Your task to perform on an android device: set an alarm Image 0: 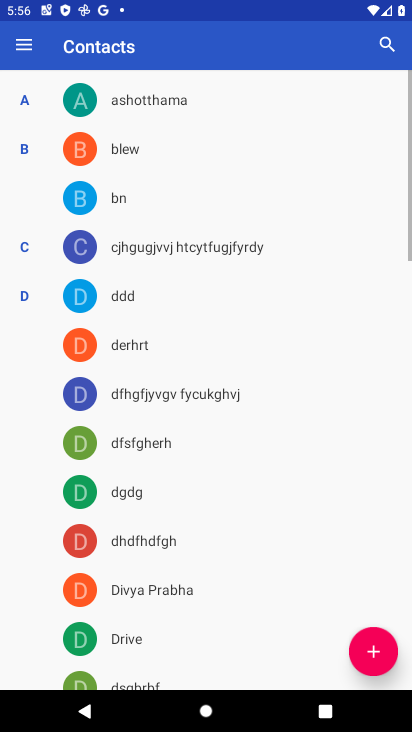
Step 0: drag from (218, 575) to (219, 313)
Your task to perform on an android device: set an alarm Image 1: 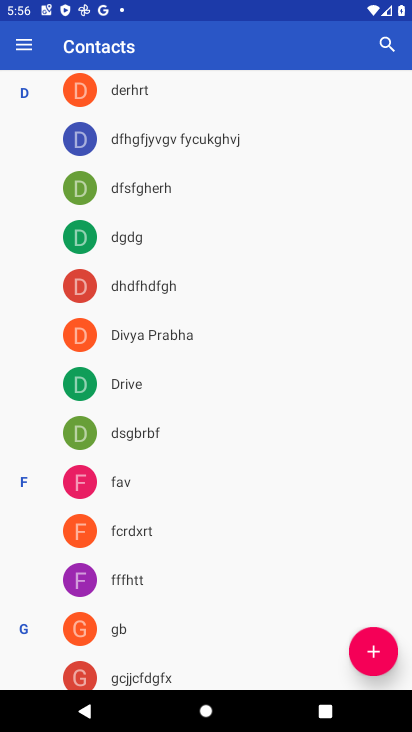
Step 1: press home button
Your task to perform on an android device: set an alarm Image 2: 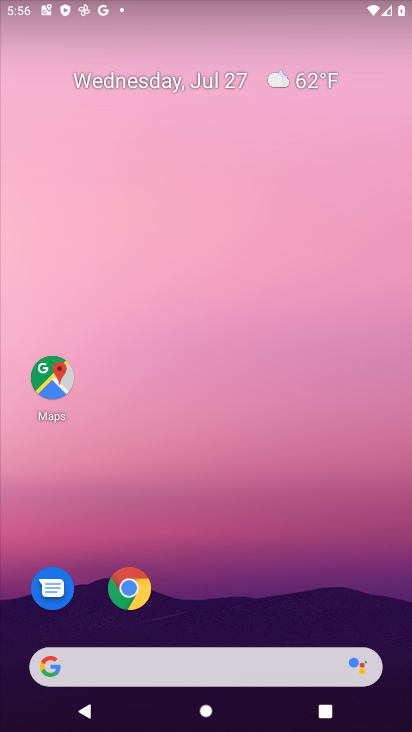
Step 2: drag from (203, 597) to (210, 155)
Your task to perform on an android device: set an alarm Image 3: 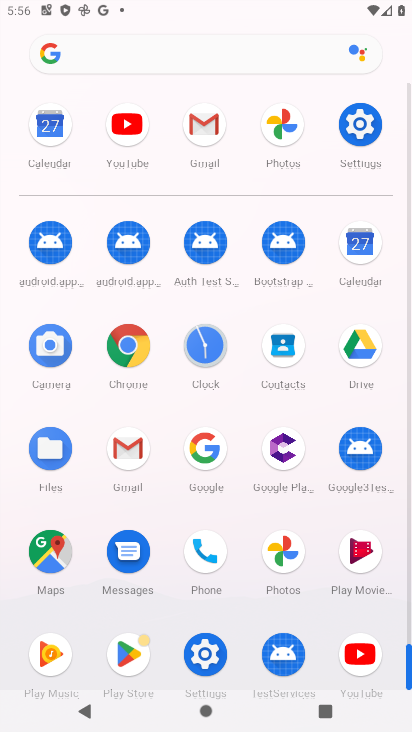
Step 3: click (206, 347)
Your task to perform on an android device: set an alarm Image 4: 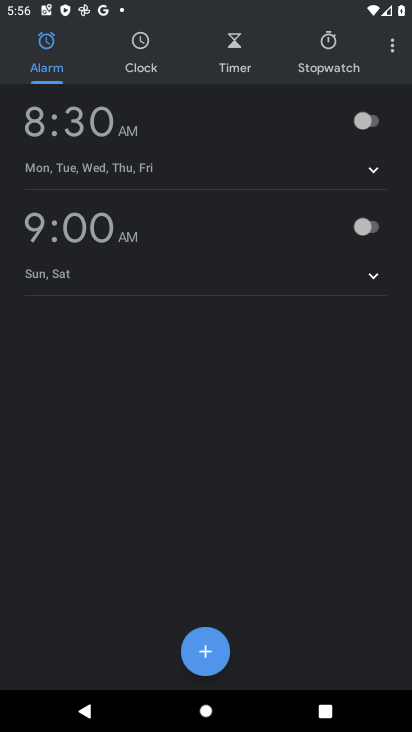
Step 4: click (371, 122)
Your task to perform on an android device: set an alarm Image 5: 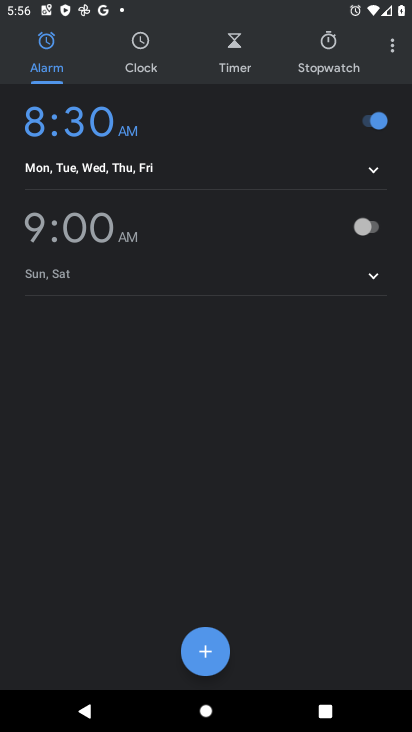
Step 5: task complete